Your task to perform on an android device: search for starred emails in the gmail app Image 0: 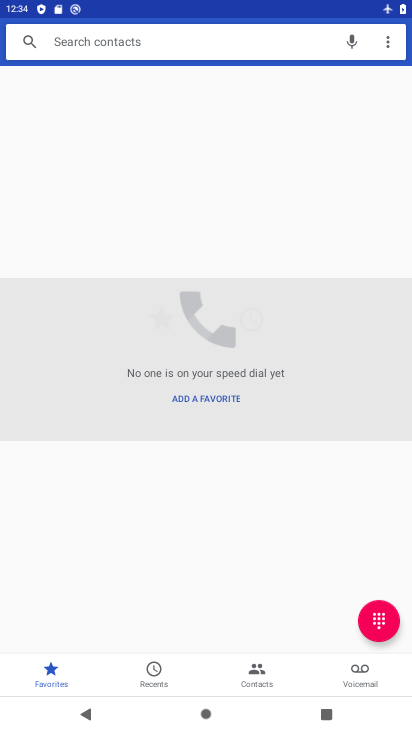
Step 0: press home button
Your task to perform on an android device: search for starred emails in the gmail app Image 1: 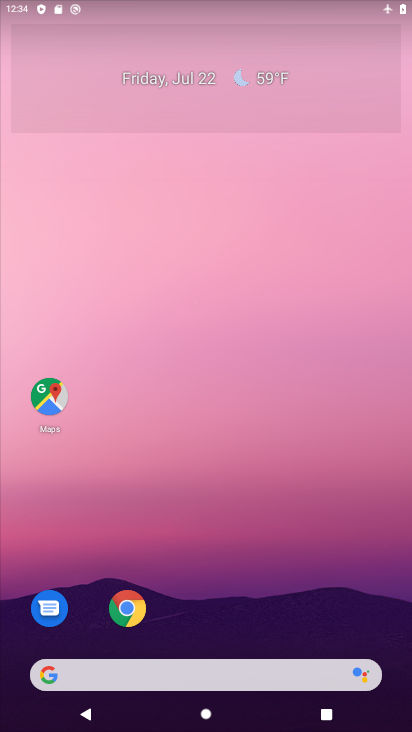
Step 1: drag from (217, 638) to (258, 56)
Your task to perform on an android device: search for starred emails in the gmail app Image 2: 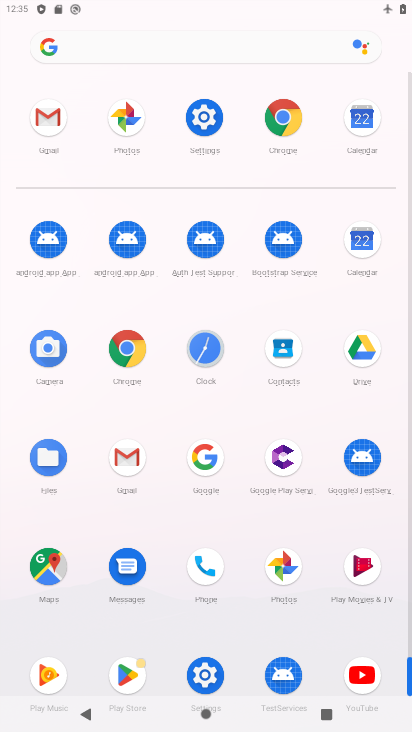
Step 2: click (132, 465)
Your task to perform on an android device: search for starred emails in the gmail app Image 3: 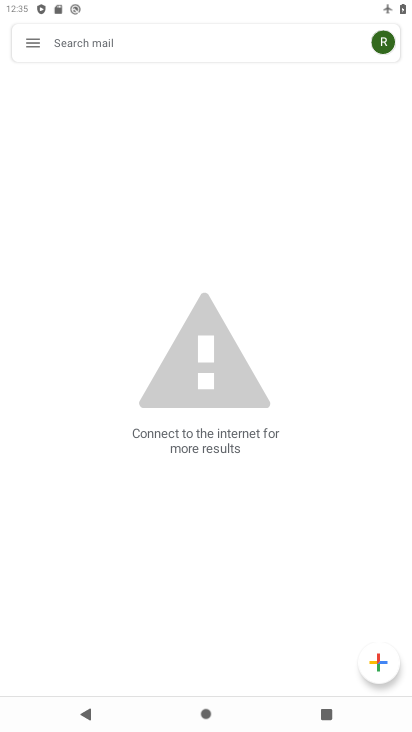
Step 3: click (32, 41)
Your task to perform on an android device: search for starred emails in the gmail app Image 4: 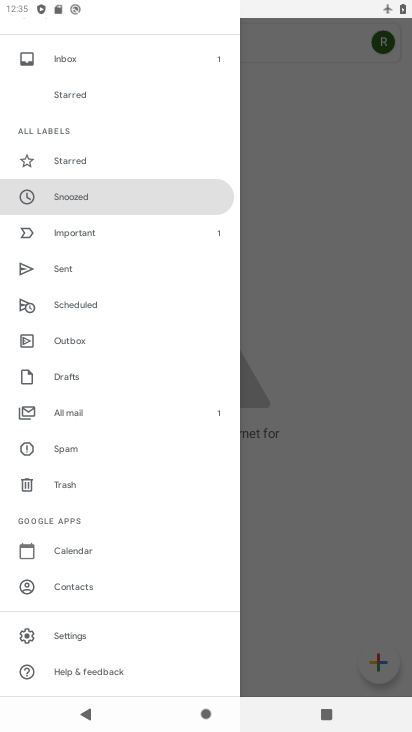
Step 4: click (82, 165)
Your task to perform on an android device: search for starred emails in the gmail app Image 5: 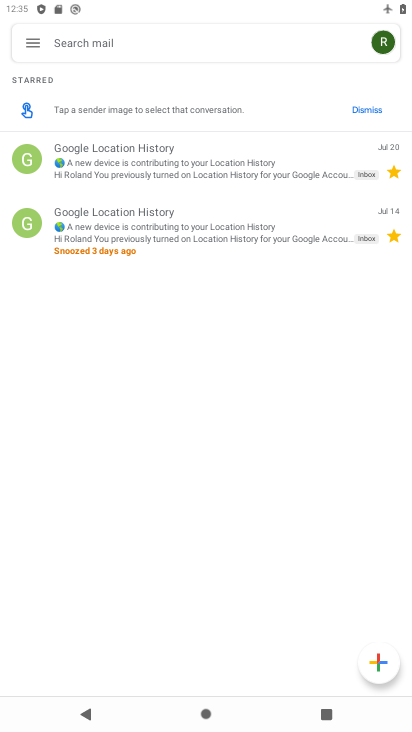
Step 5: task complete